Your task to perform on an android device: check google app version Image 0: 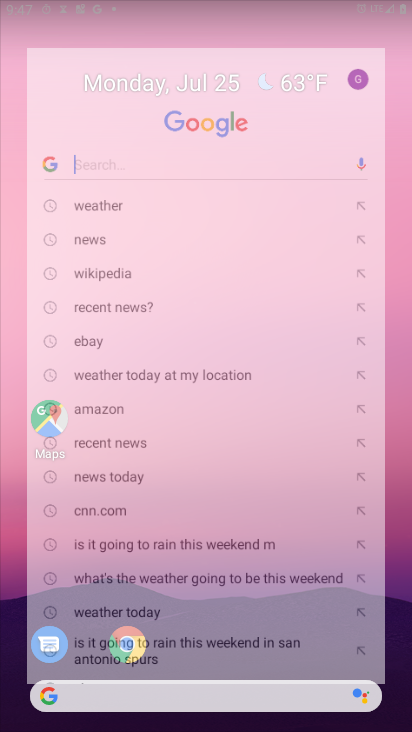
Step 0: click (272, 307)
Your task to perform on an android device: check google app version Image 1: 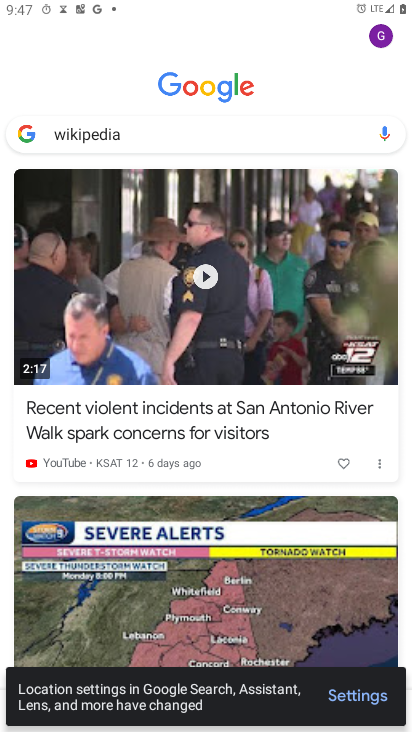
Step 1: press back button
Your task to perform on an android device: check google app version Image 2: 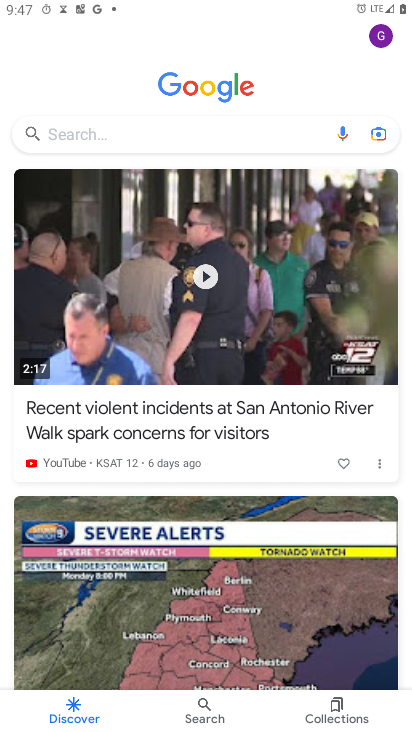
Step 2: click (372, 30)
Your task to perform on an android device: check google app version Image 3: 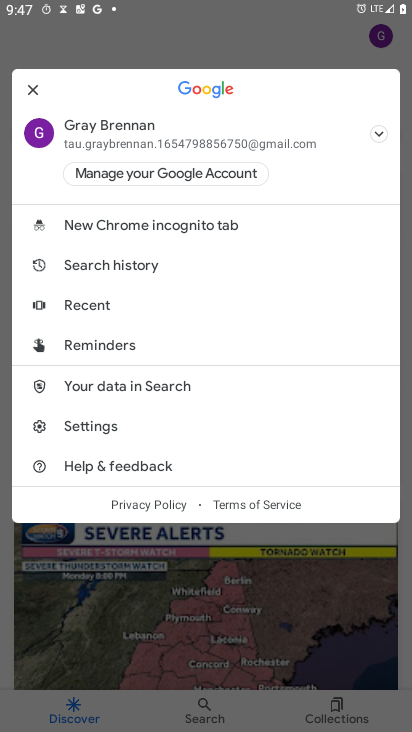
Step 3: click (85, 413)
Your task to perform on an android device: check google app version Image 4: 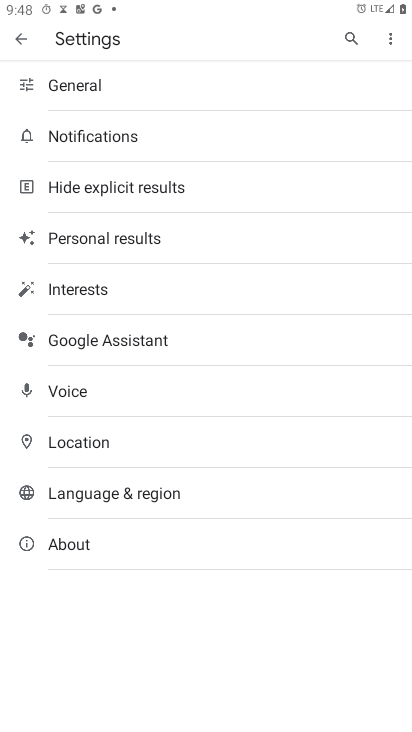
Step 4: click (96, 538)
Your task to perform on an android device: check google app version Image 5: 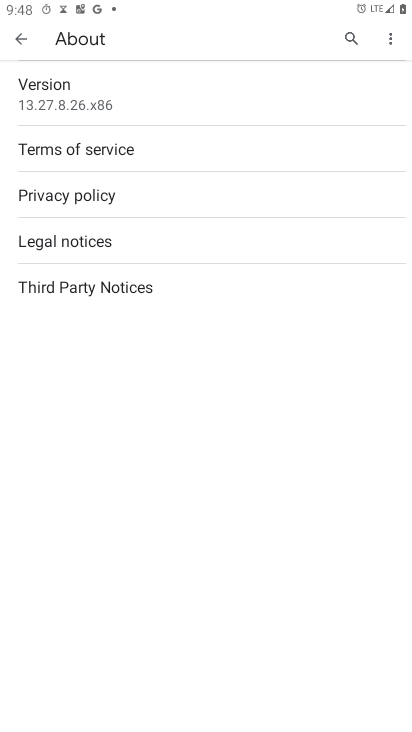
Step 5: click (62, 94)
Your task to perform on an android device: check google app version Image 6: 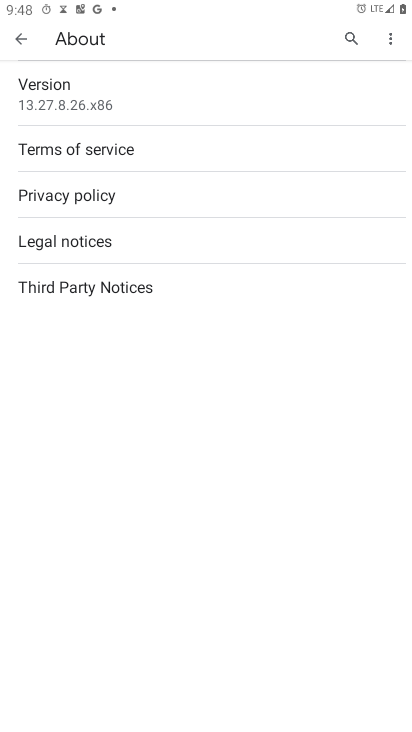
Step 6: task complete